Your task to perform on an android device: Search for pizza restaurants on Maps Image 0: 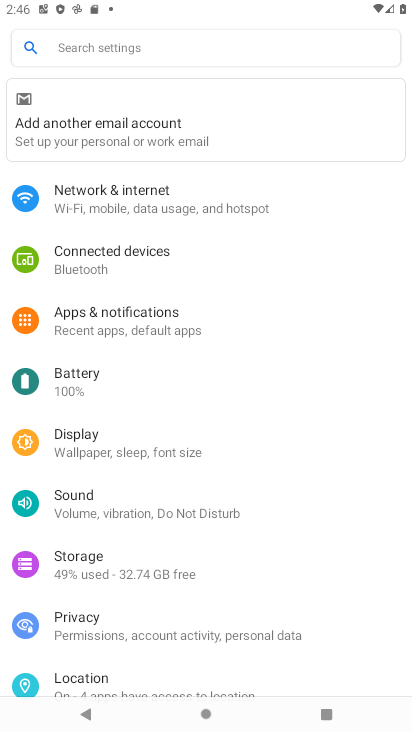
Step 0: press home button
Your task to perform on an android device: Search for pizza restaurants on Maps Image 1: 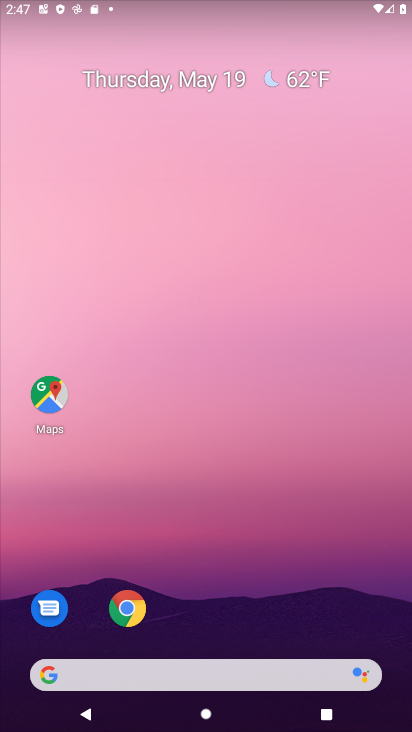
Step 1: click (49, 408)
Your task to perform on an android device: Search for pizza restaurants on Maps Image 2: 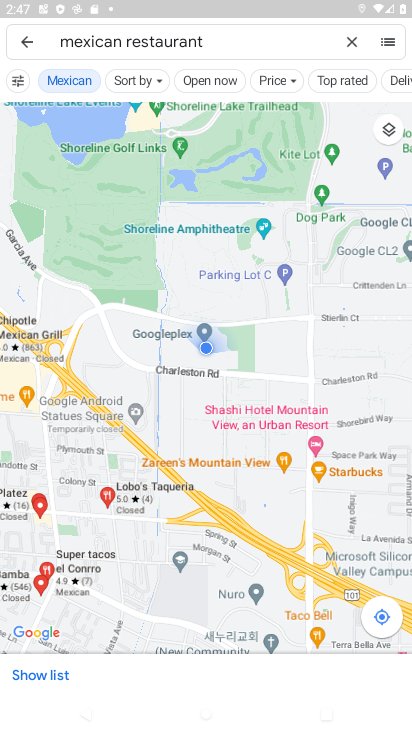
Step 2: click (361, 29)
Your task to perform on an android device: Search for pizza restaurants on Maps Image 3: 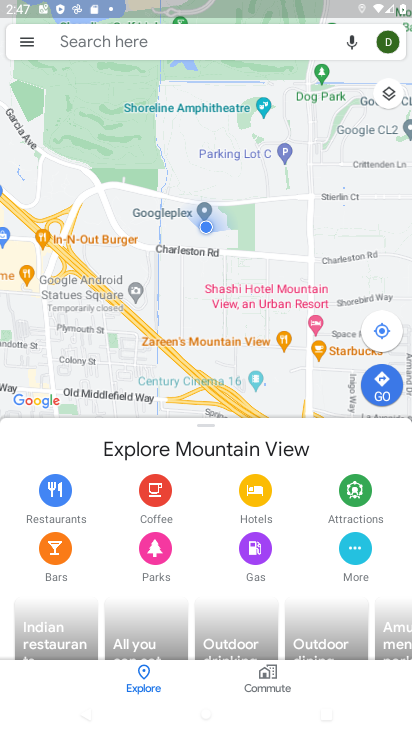
Step 3: click (303, 47)
Your task to perform on an android device: Search for pizza restaurants on Maps Image 4: 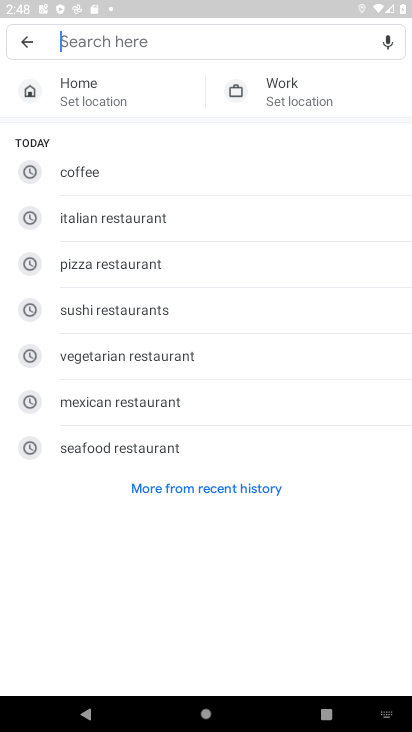
Step 4: click (246, 255)
Your task to perform on an android device: Search for pizza restaurants on Maps Image 5: 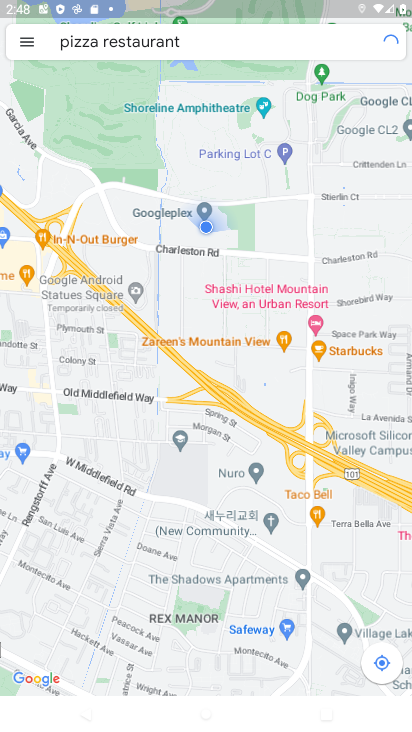
Step 5: task complete